Your task to perform on an android device: Open wifi settings Image 0: 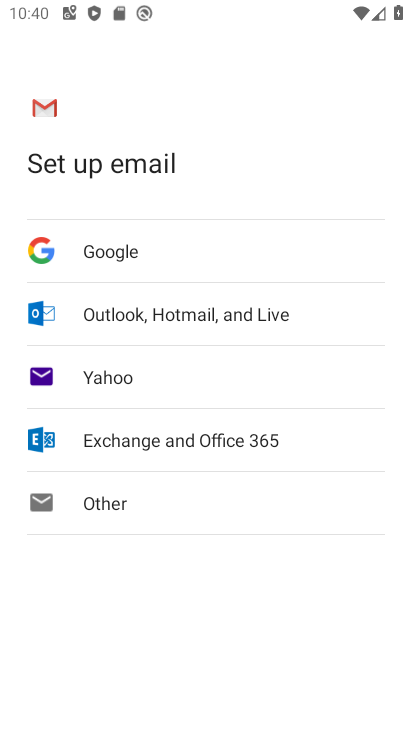
Step 0: press home button
Your task to perform on an android device: Open wifi settings Image 1: 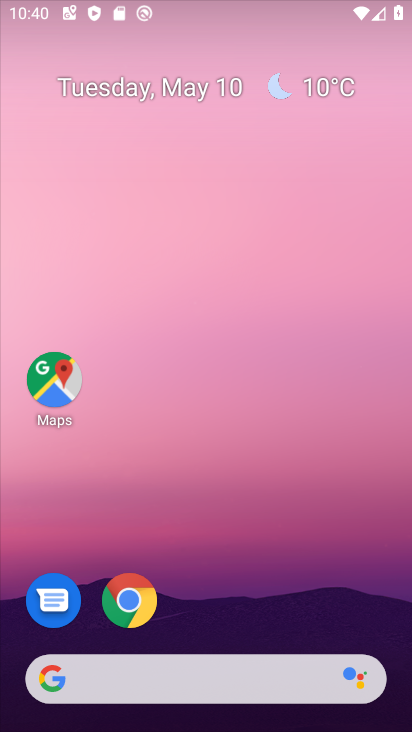
Step 1: drag from (261, 413) to (222, 88)
Your task to perform on an android device: Open wifi settings Image 2: 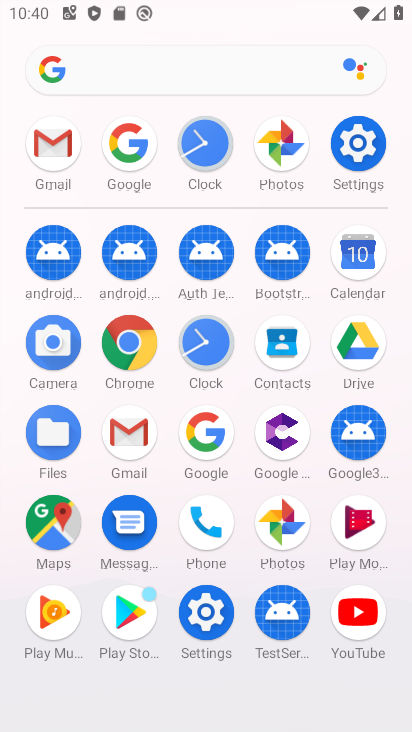
Step 2: click (372, 138)
Your task to perform on an android device: Open wifi settings Image 3: 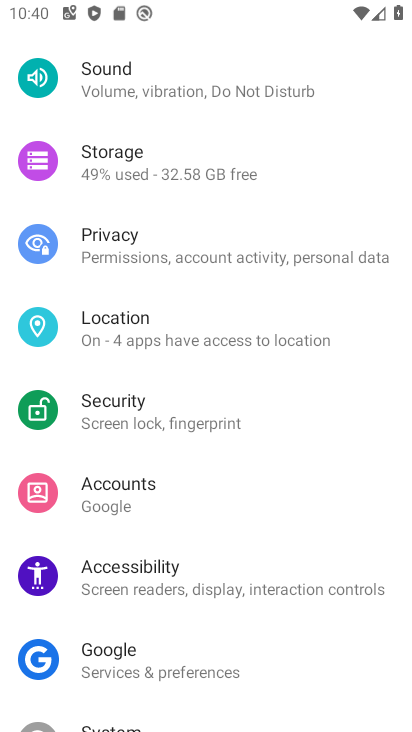
Step 3: drag from (212, 120) to (202, 721)
Your task to perform on an android device: Open wifi settings Image 4: 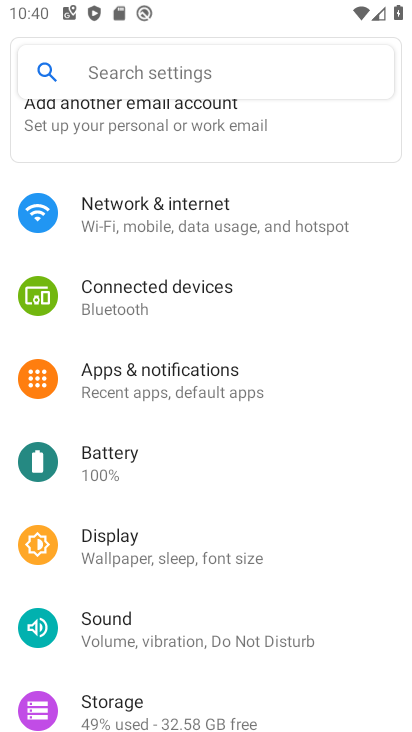
Step 4: click (161, 221)
Your task to perform on an android device: Open wifi settings Image 5: 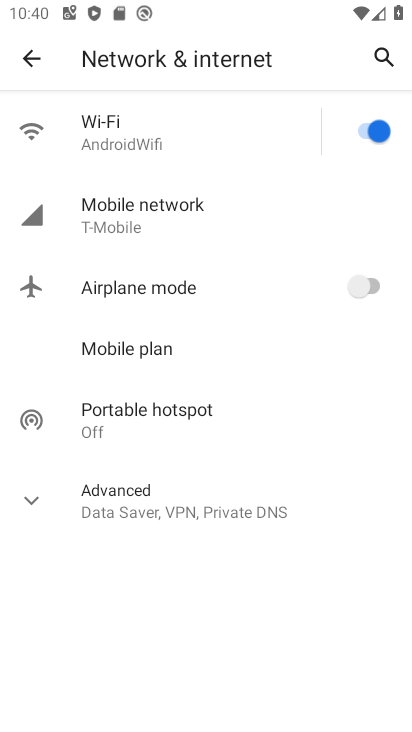
Step 5: click (154, 110)
Your task to perform on an android device: Open wifi settings Image 6: 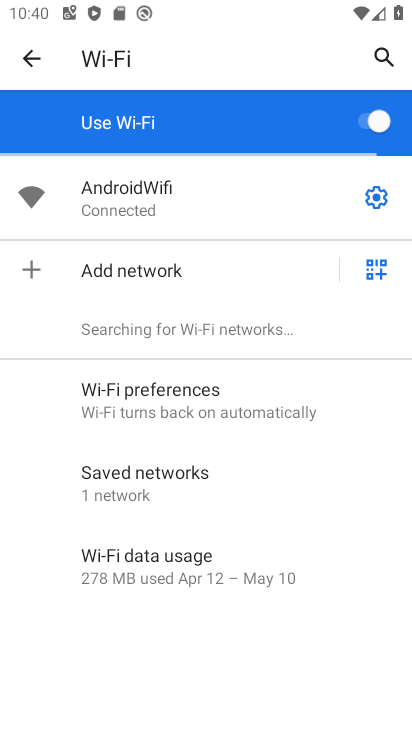
Step 6: task complete